Your task to perform on an android device: turn on the 24-hour format for clock Image 0: 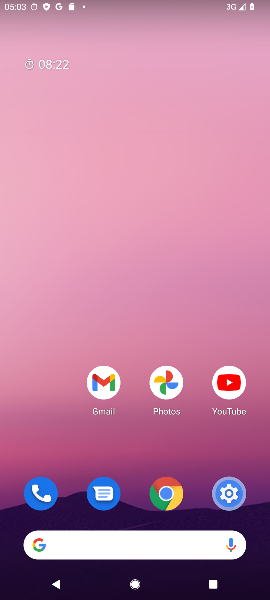
Step 0: press home button
Your task to perform on an android device: turn on the 24-hour format for clock Image 1: 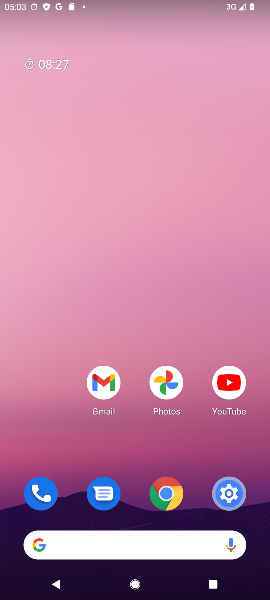
Step 1: drag from (60, 462) to (90, 119)
Your task to perform on an android device: turn on the 24-hour format for clock Image 2: 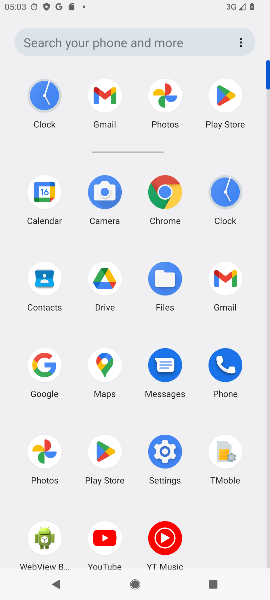
Step 2: click (228, 195)
Your task to perform on an android device: turn on the 24-hour format for clock Image 3: 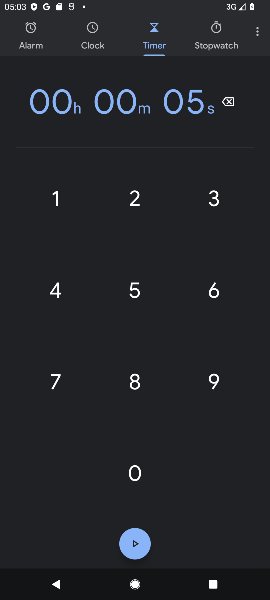
Step 3: click (257, 34)
Your task to perform on an android device: turn on the 24-hour format for clock Image 4: 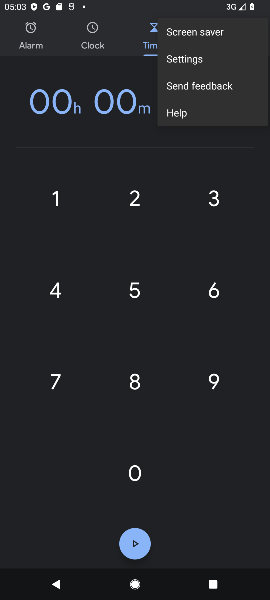
Step 4: click (200, 54)
Your task to perform on an android device: turn on the 24-hour format for clock Image 5: 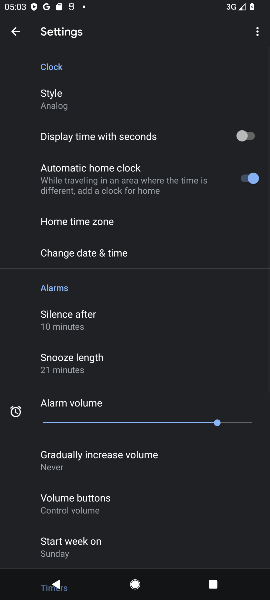
Step 5: drag from (198, 265) to (205, 208)
Your task to perform on an android device: turn on the 24-hour format for clock Image 6: 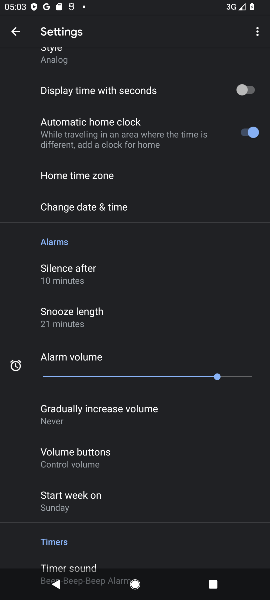
Step 6: drag from (197, 300) to (201, 229)
Your task to perform on an android device: turn on the 24-hour format for clock Image 7: 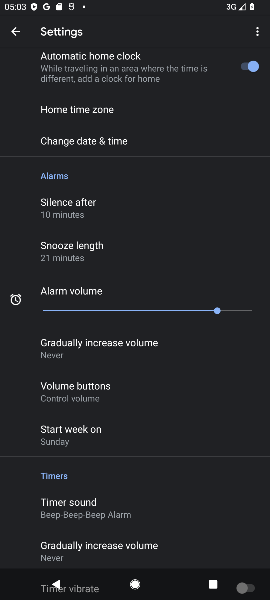
Step 7: drag from (189, 363) to (198, 273)
Your task to perform on an android device: turn on the 24-hour format for clock Image 8: 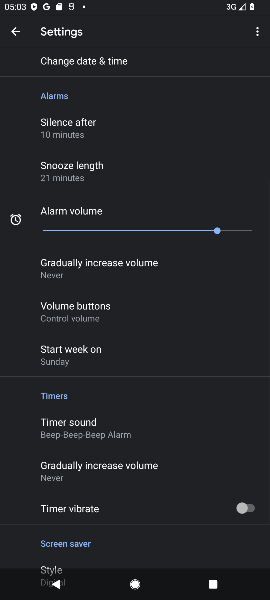
Step 8: drag from (193, 361) to (195, 244)
Your task to perform on an android device: turn on the 24-hour format for clock Image 9: 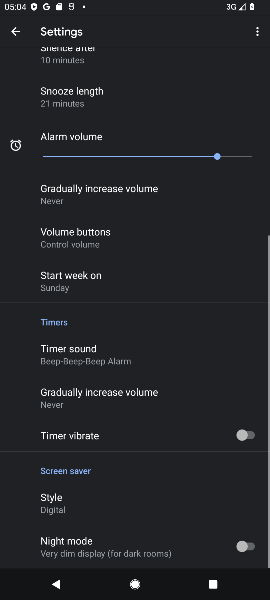
Step 9: drag from (200, 190) to (193, 275)
Your task to perform on an android device: turn on the 24-hour format for clock Image 10: 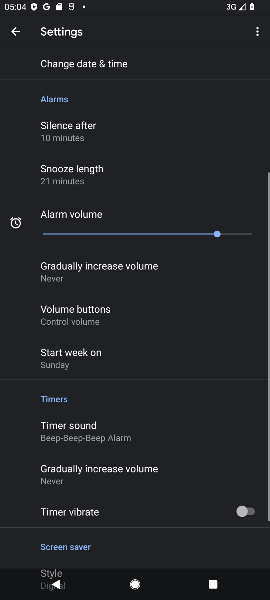
Step 10: drag from (191, 189) to (191, 276)
Your task to perform on an android device: turn on the 24-hour format for clock Image 11: 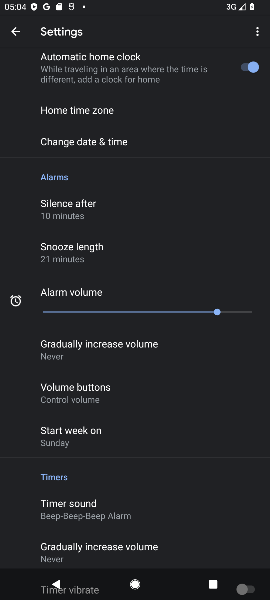
Step 11: drag from (203, 162) to (195, 270)
Your task to perform on an android device: turn on the 24-hour format for clock Image 12: 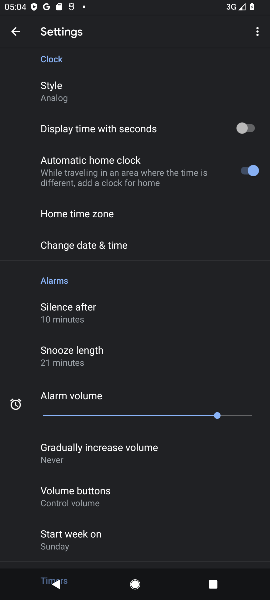
Step 12: drag from (199, 200) to (200, 278)
Your task to perform on an android device: turn on the 24-hour format for clock Image 13: 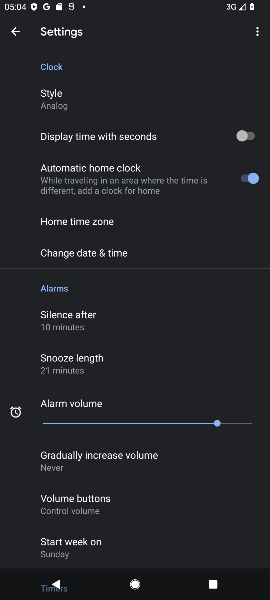
Step 13: click (127, 253)
Your task to perform on an android device: turn on the 24-hour format for clock Image 14: 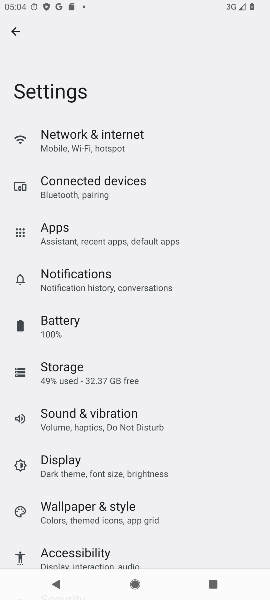
Step 14: task complete